Your task to perform on an android device: turn smart compose on in the gmail app Image 0: 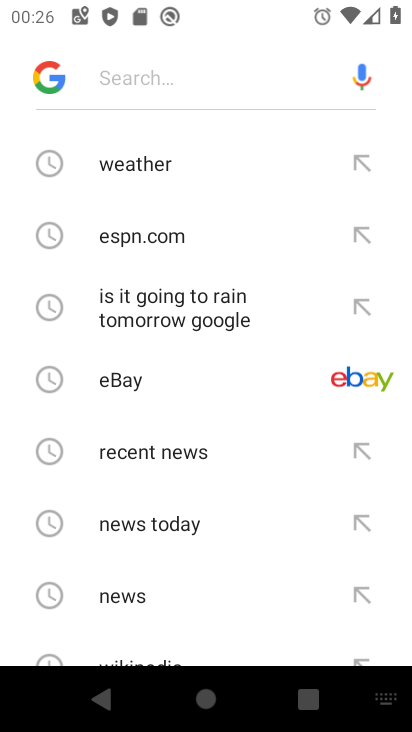
Step 0: press home button
Your task to perform on an android device: turn smart compose on in the gmail app Image 1: 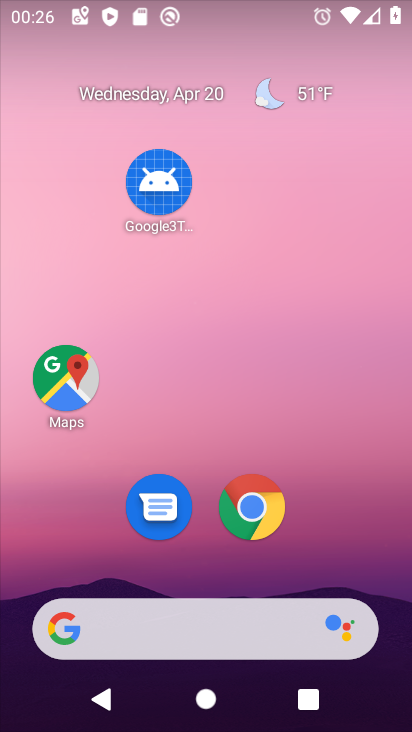
Step 1: drag from (207, 573) to (301, 11)
Your task to perform on an android device: turn smart compose on in the gmail app Image 2: 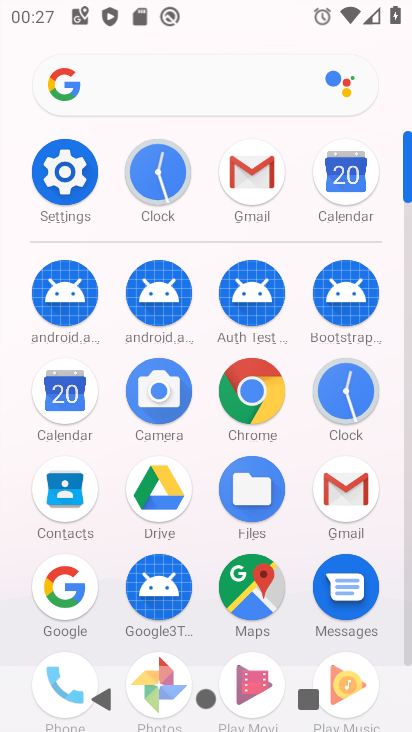
Step 2: click (250, 183)
Your task to perform on an android device: turn smart compose on in the gmail app Image 3: 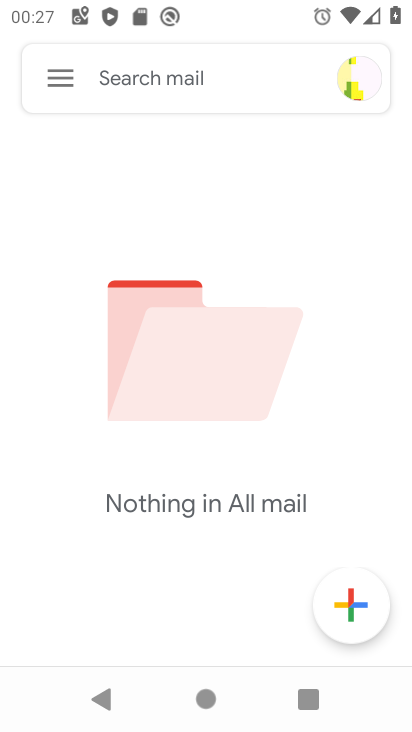
Step 3: click (62, 77)
Your task to perform on an android device: turn smart compose on in the gmail app Image 4: 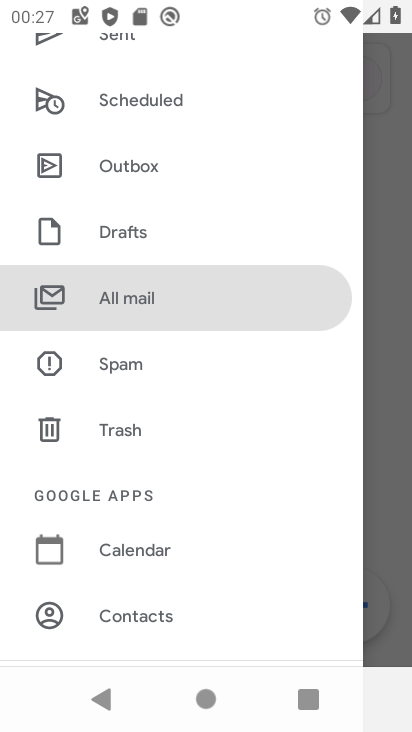
Step 4: drag from (136, 581) to (157, 150)
Your task to perform on an android device: turn smart compose on in the gmail app Image 5: 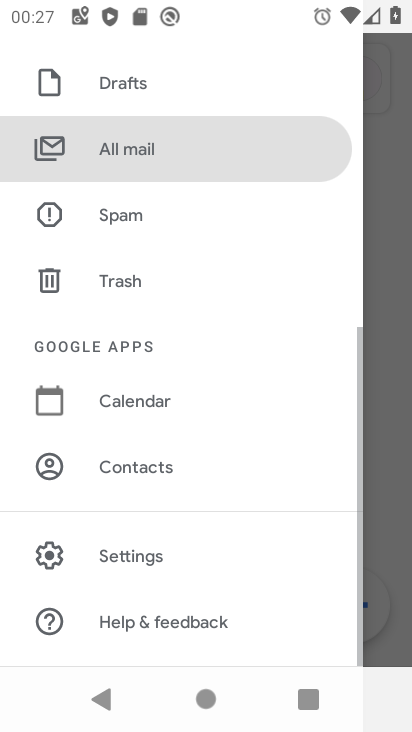
Step 5: click (126, 555)
Your task to perform on an android device: turn smart compose on in the gmail app Image 6: 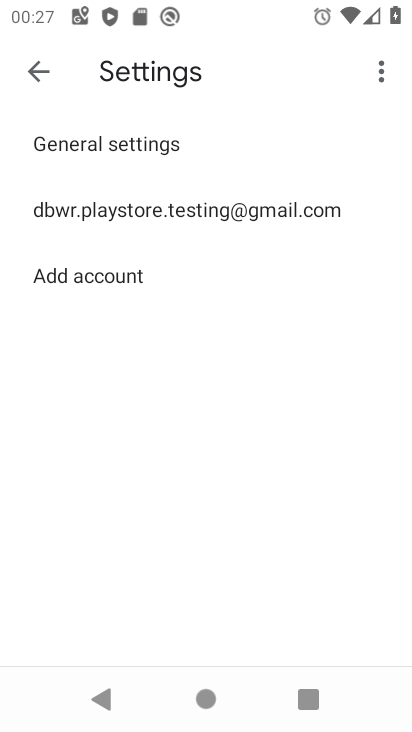
Step 6: click (122, 215)
Your task to perform on an android device: turn smart compose on in the gmail app Image 7: 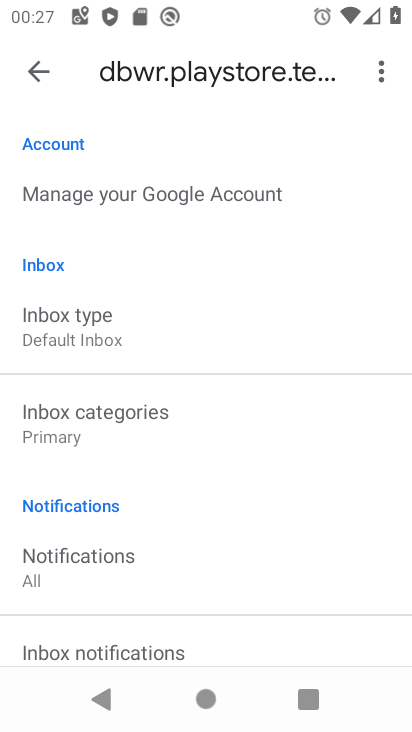
Step 7: task complete